Your task to perform on an android device: star an email in the gmail app Image 0: 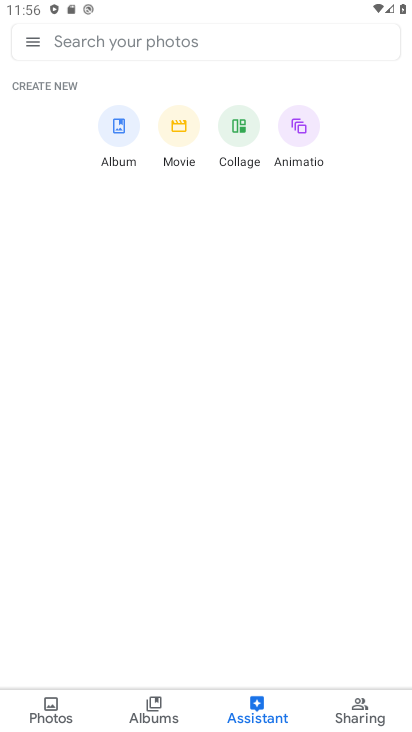
Step 0: press home button
Your task to perform on an android device: star an email in the gmail app Image 1: 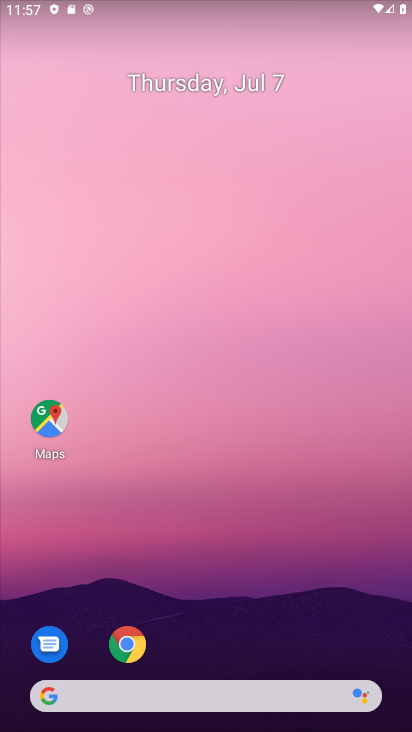
Step 1: drag from (231, 685) to (128, 396)
Your task to perform on an android device: star an email in the gmail app Image 2: 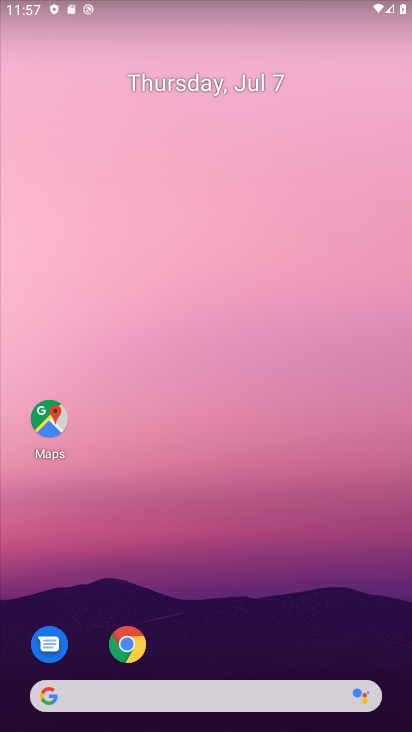
Step 2: drag from (243, 678) to (184, 265)
Your task to perform on an android device: star an email in the gmail app Image 3: 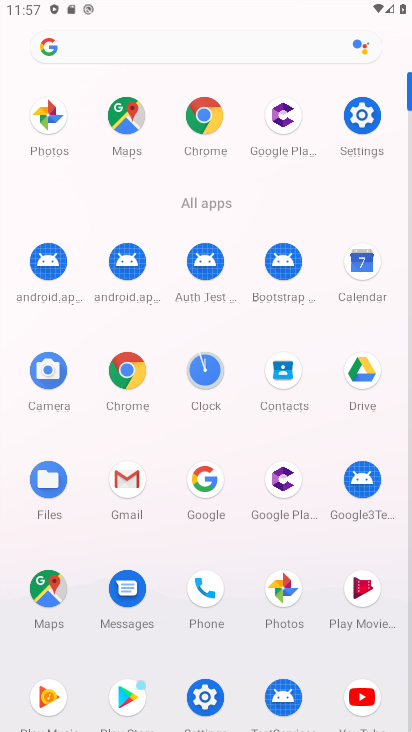
Step 3: click (126, 488)
Your task to perform on an android device: star an email in the gmail app Image 4: 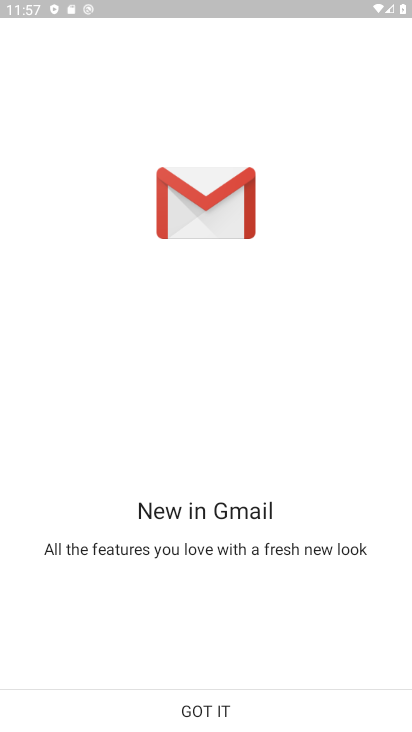
Step 4: click (212, 708)
Your task to perform on an android device: star an email in the gmail app Image 5: 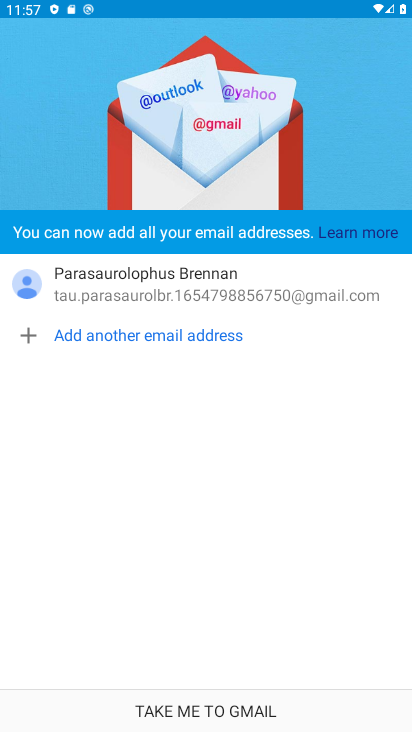
Step 5: click (240, 703)
Your task to perform on an android device: star an email in the gmail app Image 6: 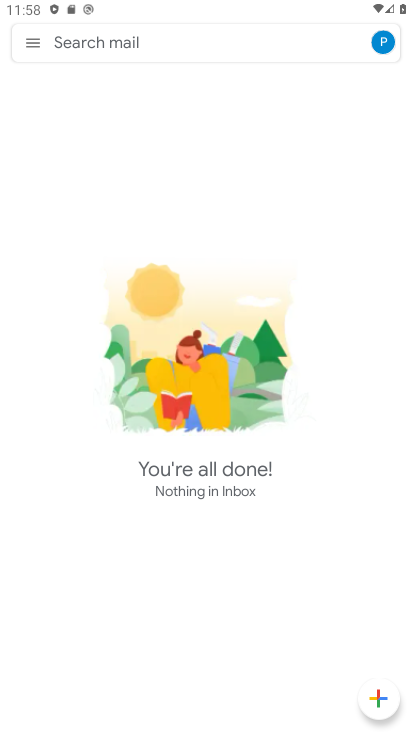
Step 6: click (38, 45)
Your task to perform on an android device: star an email in the gmail app Image 7: 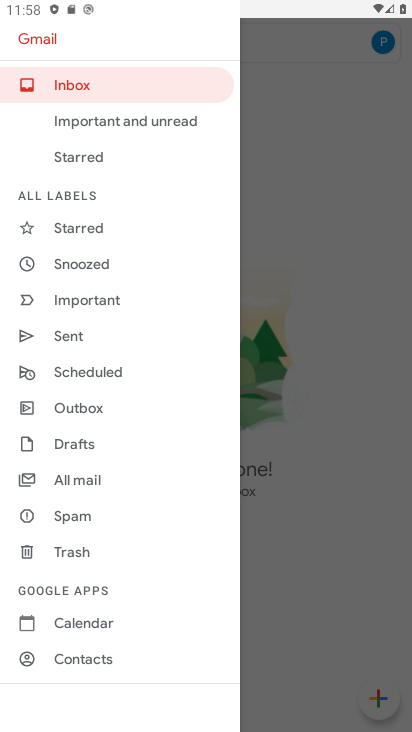
Step 7: click (110, 483)
Your task to perform on an android device: star an email in the gmail app Image 8: 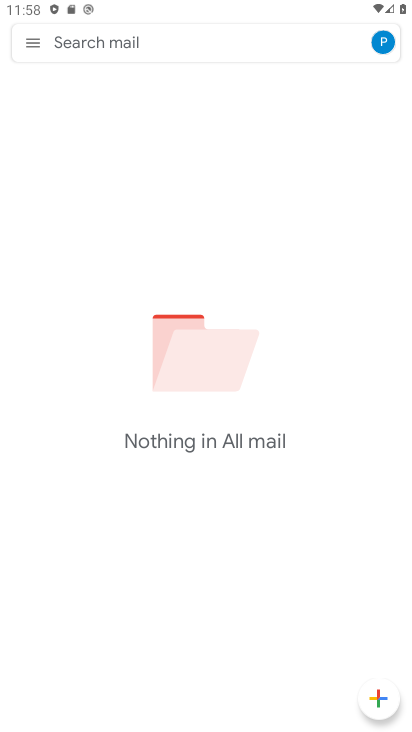
Step 8: task complete